Your task to perform on an android device: Search for Mexican restaurants on Maps Image 0: 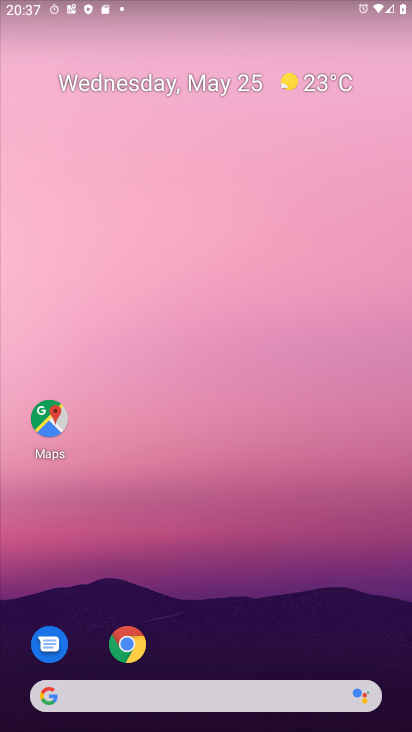
Step 0: drag from (294, 628) to (251, 149)
Your task to perform on an android device: Search for Mexican restaurants on Maps Image 1: 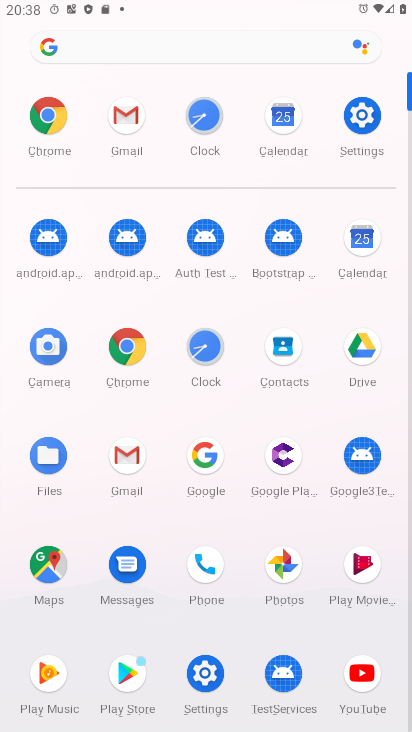
Step 1: click (51, 576)
Your task to perform on an android device: Search for Mexican restaurants on Maps Image 2: 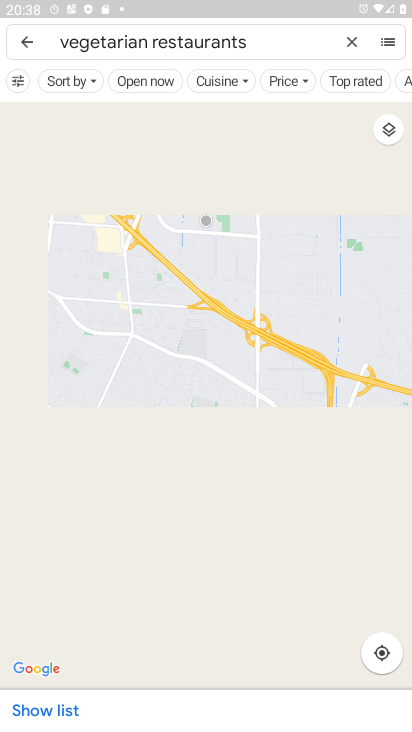
Step 2: click (356, 34)
Your task to perform on an android device: Search for Mexican restaurants on Maps Image 3: 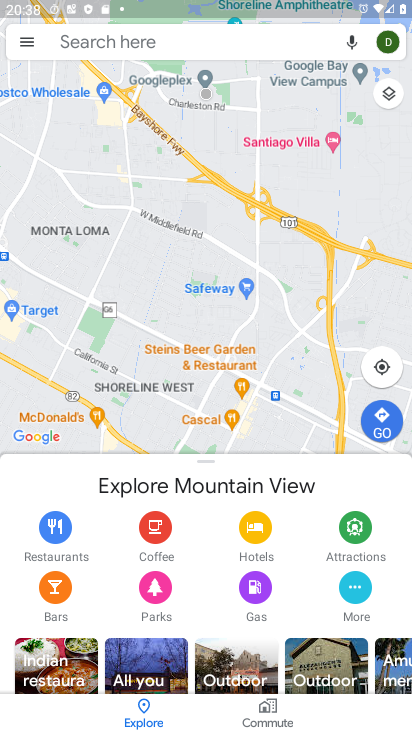
Step 3: click (123, 32)
Your task to perform on an android device: Search for Mexican restaurants on Maps Image 4: 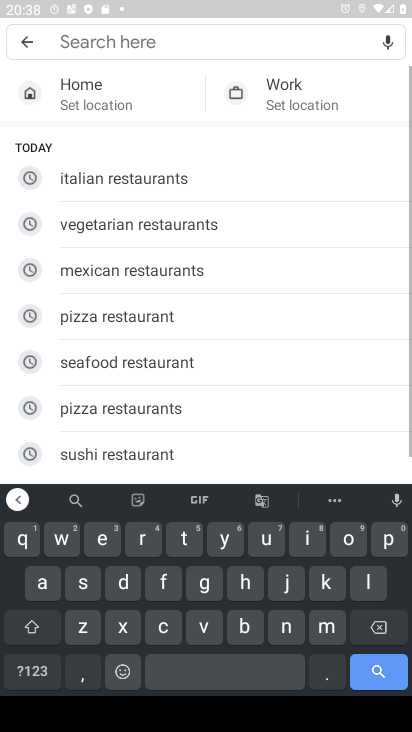
Step 4: click (96, 31)
Your task to perform on an android device: Search for Mexican restaurants on Maps Image 5: 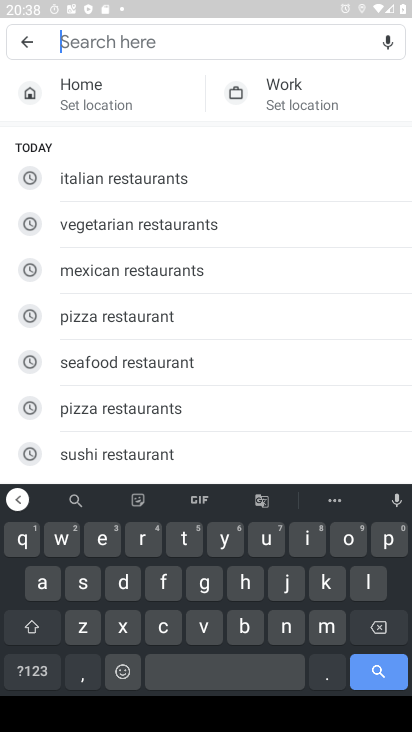
Step 5: click (154, 277)
Your task to perform on an android device: Search for Mexican restaurants on Maps Image 6: 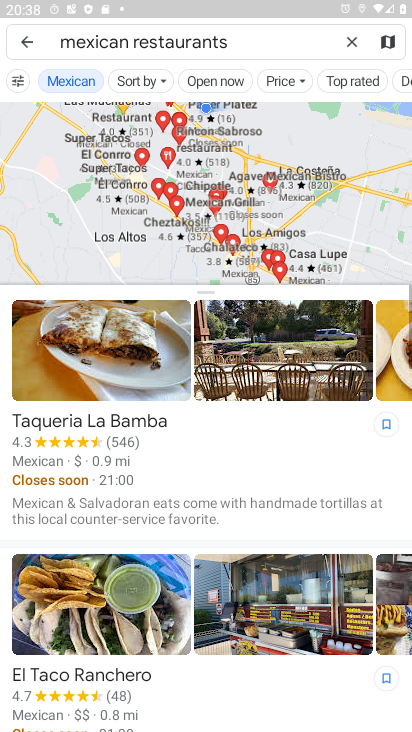
Step 6: task complete